Your task to perform on an android device: change the clock display to show seconds Image 0: 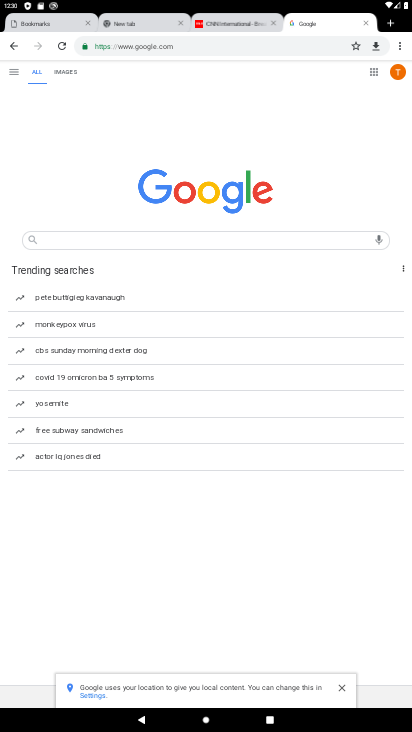
Step 0: press home button
Your task to perform on an android device: change the clock display to show seconds Image 1: 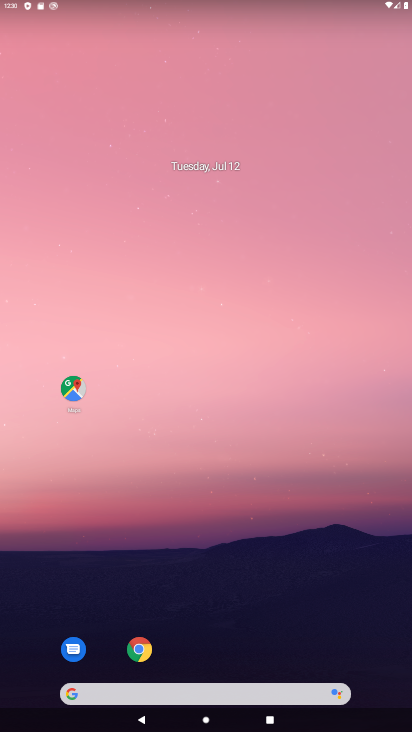
Step 1: drag from (265, 629) to (245, 194)
Your task to perform on an android device: change the clock display to show seconds Image 2: 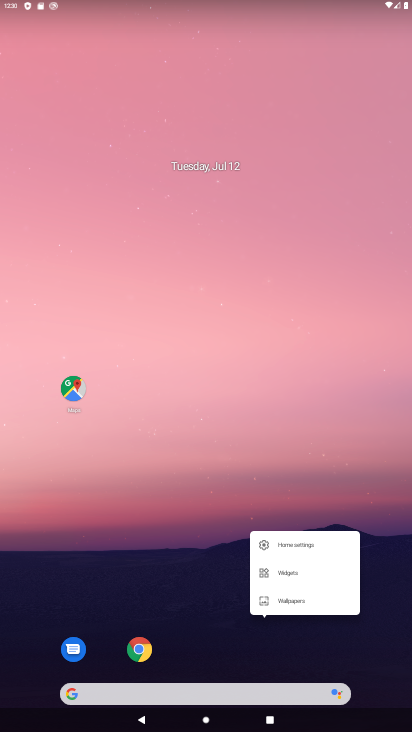
Step 2: click (226, 513)
Your task to perform on an android device: change the clock display to show seconds Image 3: 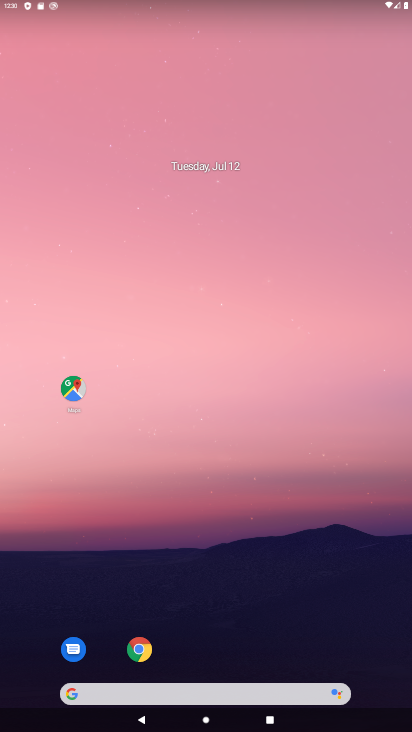
Step 3: drag from (254, 649) to (224, 304)
Your task to perform on an android device: change the clock display to show seconds Image 4: 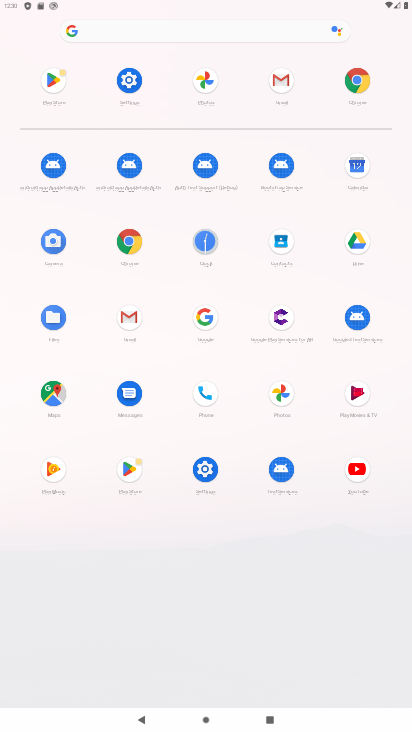
Step 4: click (208, 244)
Your task to perform on an android device: change the clock display to show seconds Image 5: 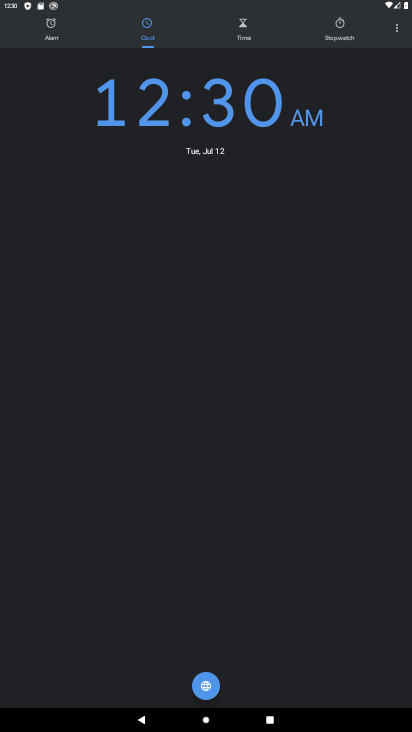
Step 5: click (388, 40)
Your task to perform on an android device: change the clock display to show seconds Image 6: 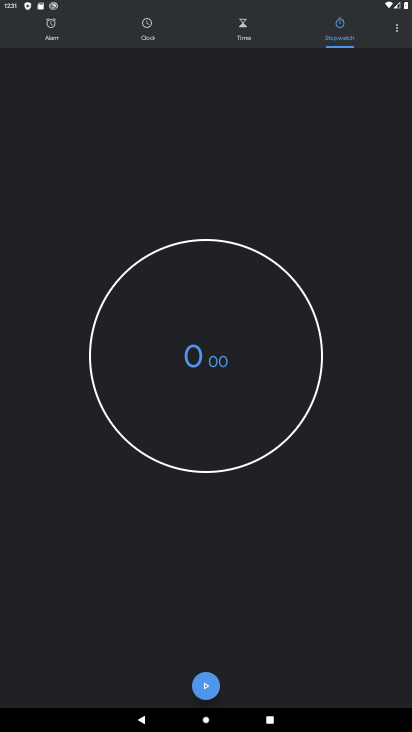
Step 6: click (404, 34)
Your task to perform on an android device: change the clock display to show seconds Image 7: 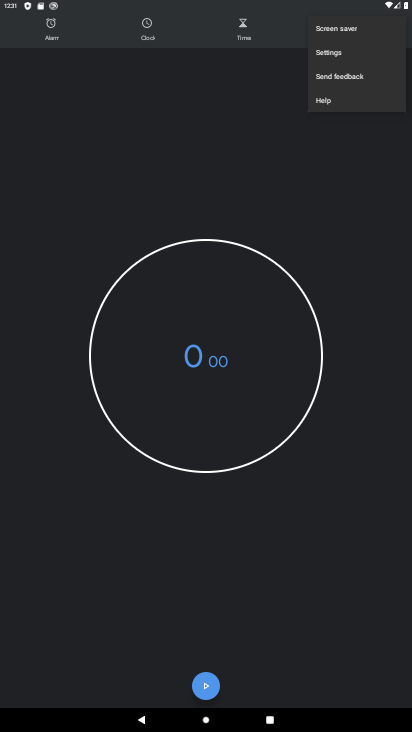
Step 7: click (361, 51)
Your task to perform on an android device: change the clock display to show seconds Image 8: 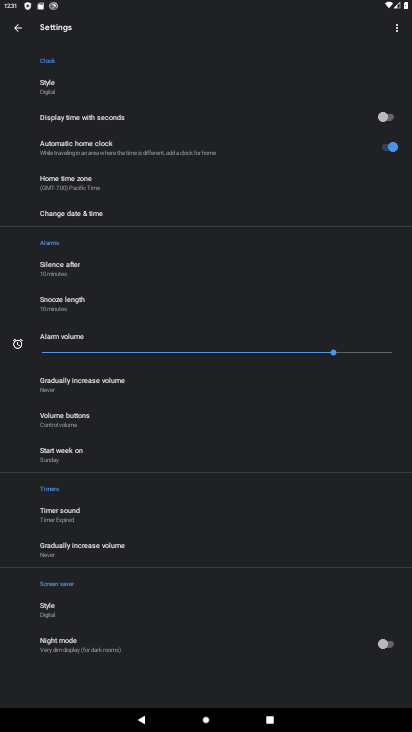
Step 8: click (377, 117)
Your task to perform on an android device: change the clock display to show seconds Image 9: 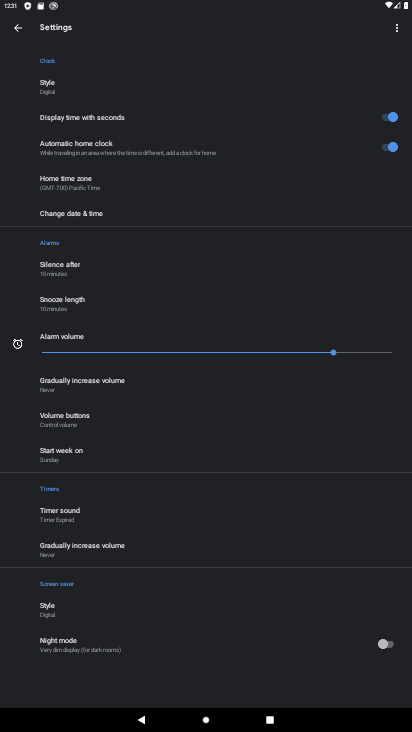
Step 9: task complete